Your task to perform on an android device: Check the weather Image 0: 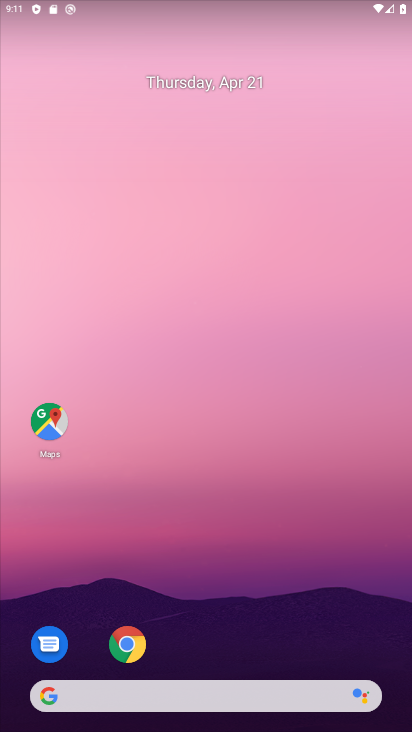
Step 0: click (134, 648)
Your task to perform on an android device: Check the weather Image 1: 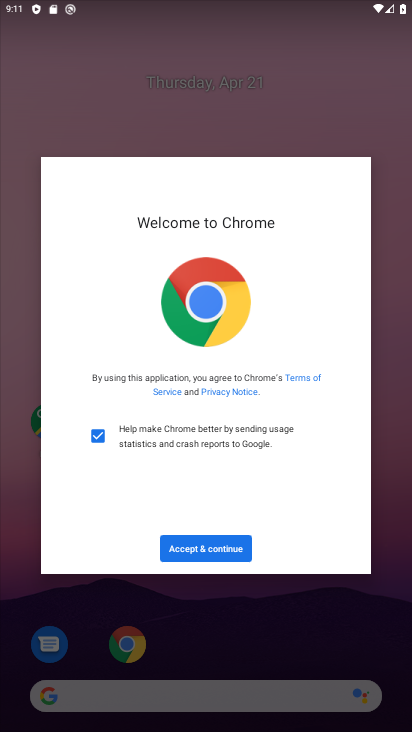
Step 1: click (202, 545)
Your task to perform on an android device: Check the weather Image 2: 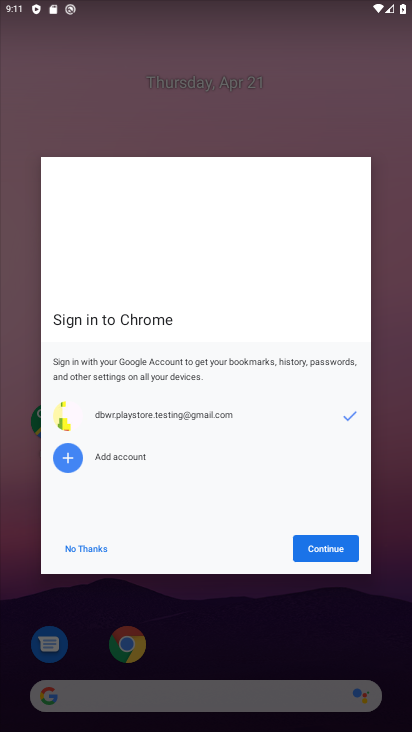
Step 2: click (319, 557)
Your task to perform on an android device: Check the weather Image 3: 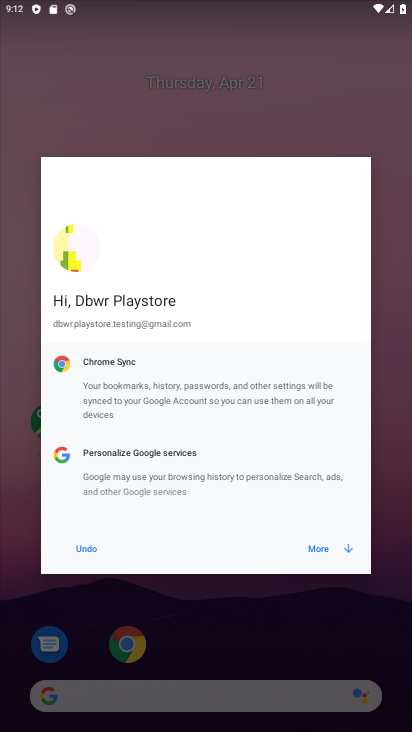
Step 3: click (326, 548)
Your task to perform on an android device: Check the weather Image 4: 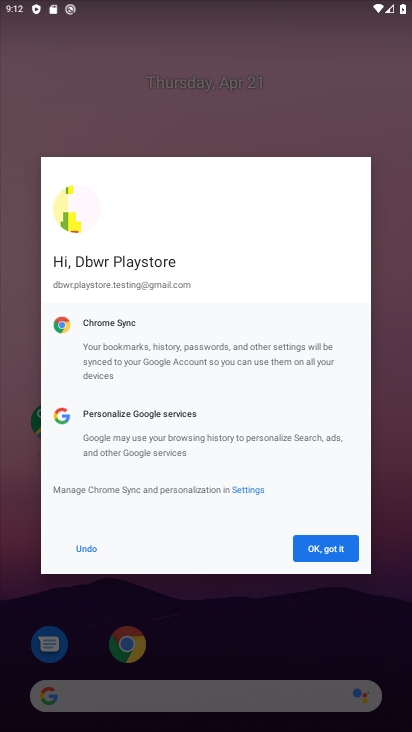
Step 4: click (326, 548)
Your task to perform on an android device: Check the weather Image 5: 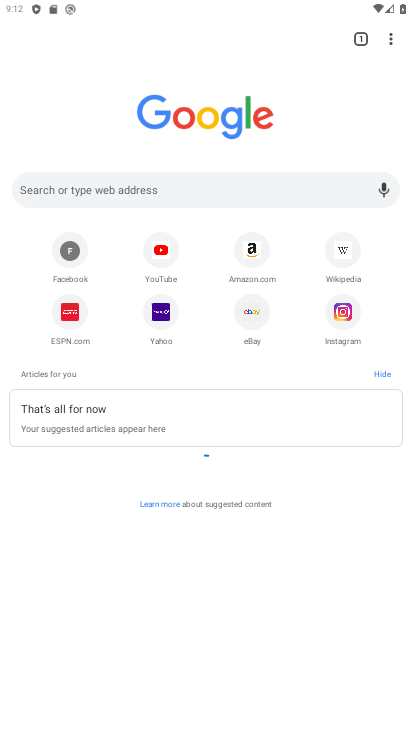
Step 5: click (265, 188)
Your task to perform on an android device: Check the weather Image 6: 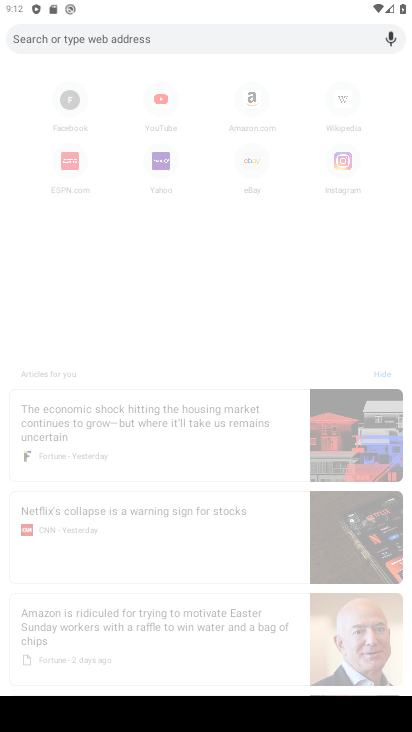
Step 6: type "weather"
Your task to perform on an android device: Check the weather Image 7: 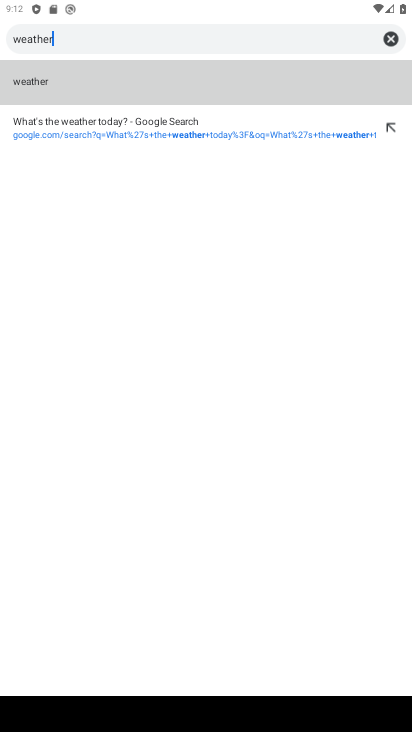
Step 7: click (194, 130)
Your task to perform on an android device: Check the weather Image 8: 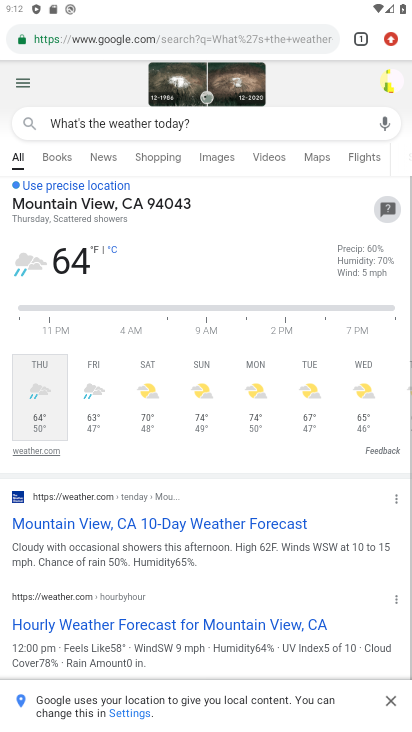
Step 8: task complete